Your task to perform on an android device: change notification settings in the gmail app Image 0: 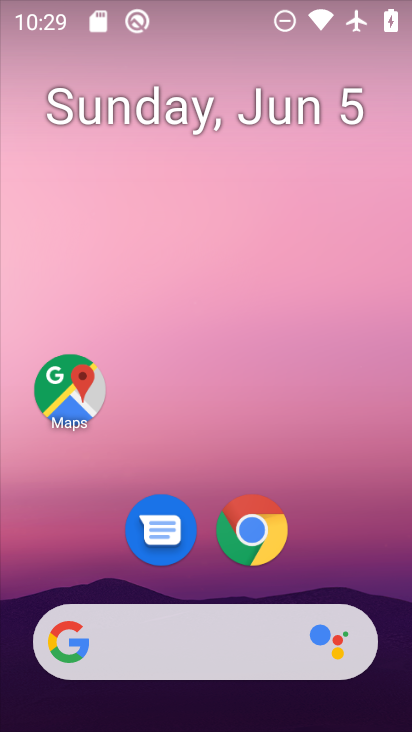
Step 0: drag from (403, 624) to (293, 133)
Your task to perform on an android device: change notification settings in the gmail app Image 1: 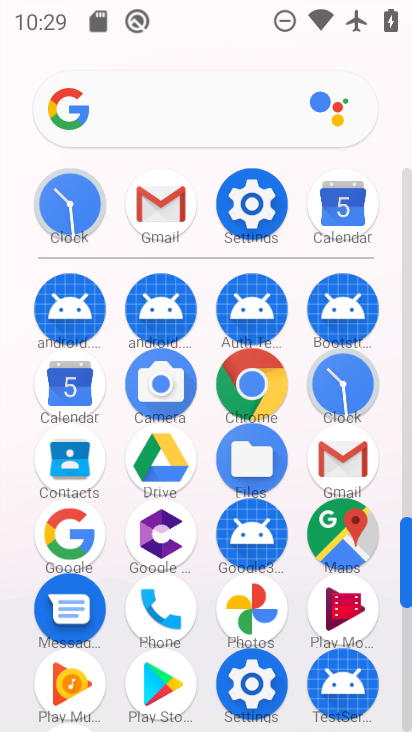
Step 1: click (343, 456)
Your task to perform on an android device: change notification settings in the gmail app Image 2: 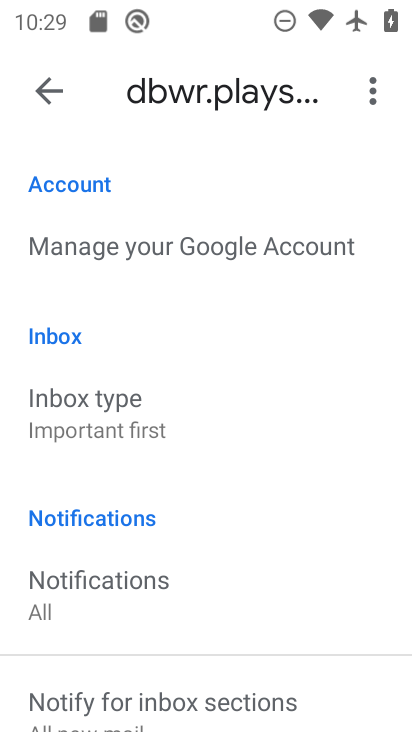
Step 2: drag from (270, 652) to (187, 202)
Your task to perform on an android device: change notification settings in the gmail app Image 3: 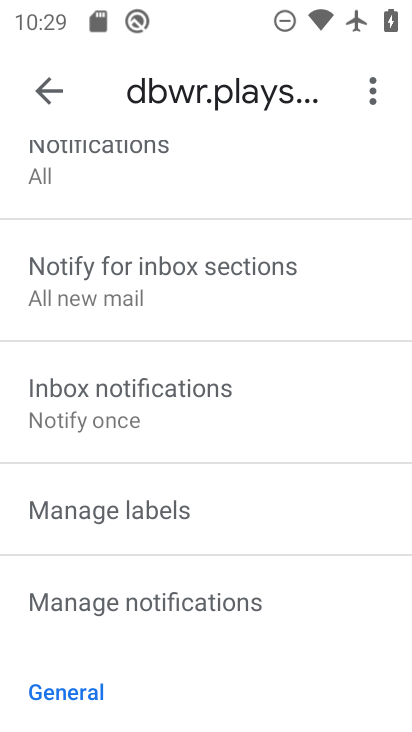
Step 3: click (172, 604)
Your task to perform on an android device: change notification settings in the gmail app Image 4: 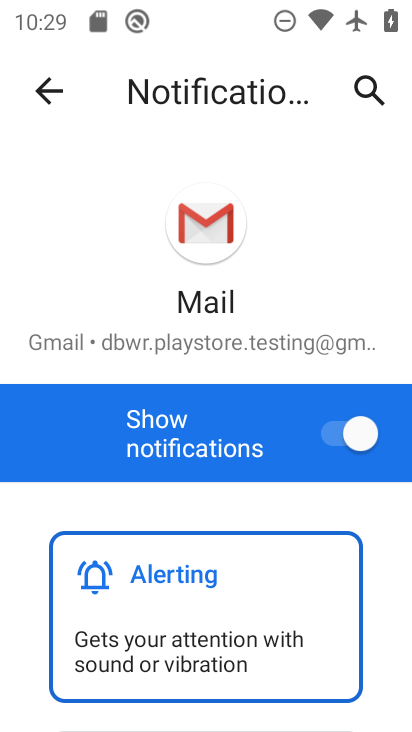
Step 4: drag from (401, 642) to (315, 179)
Your task to perform on an android device: change notification settings in the gmail app Image 5: 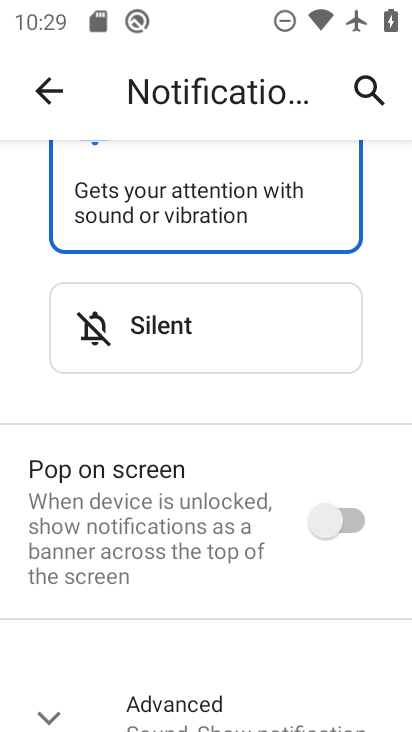
Step 5: drag from (310, 638) to (245, 232)
Your task to perform on an android device: change notification settings in the gmail app Image 6: 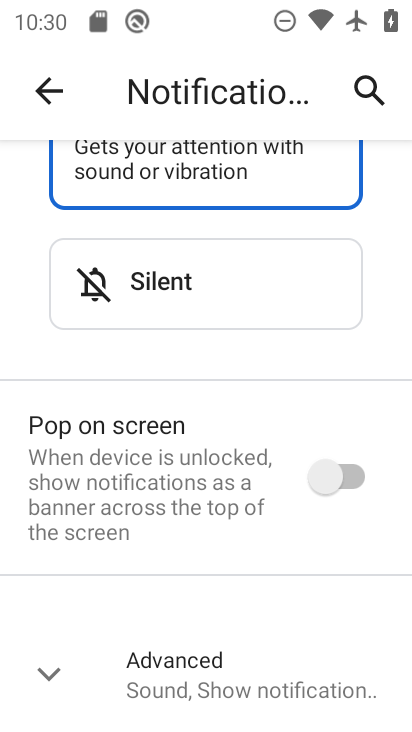
Step 6: click (50, 668)
Your task to perform on an android device: change notification settings in the gmail app Image 7: 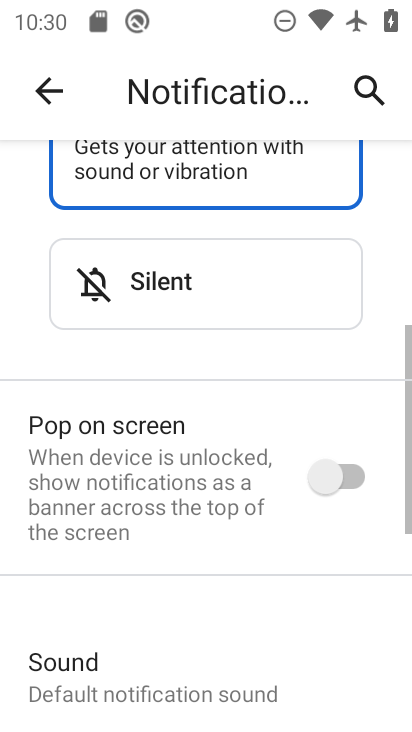
Step 7: drag from (297, 659) to (217, 331)
Your task to perform on an android device: change notification settings in the gmail app Image 8: 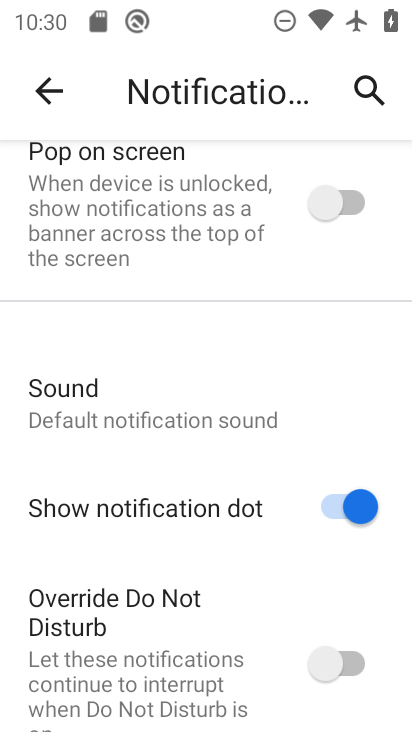
Step 8: click (358, 668)
Your task to perform on an android device: change notification settings in the gmail app Image 9: 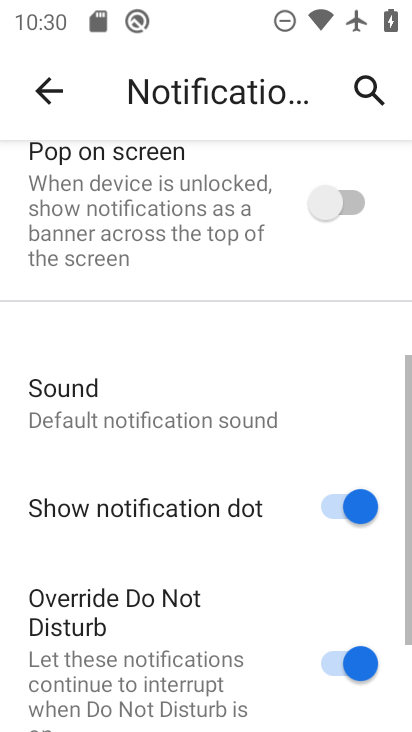
Step 9: drag from (231, 654) to (212, 207)
Your task to perform on an android device: change notification settings in the gmail app Image 10: 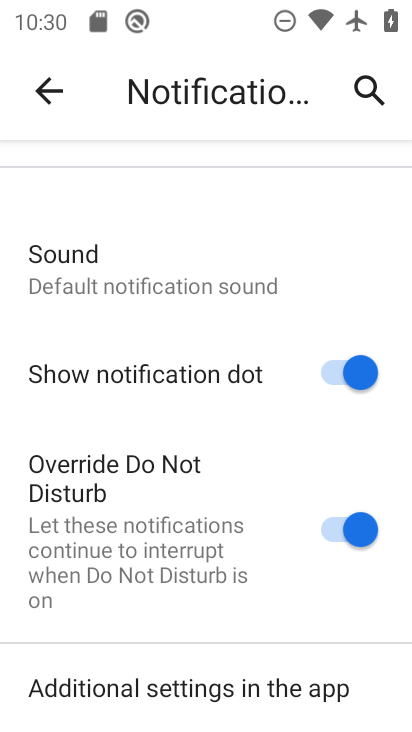
Step 10: click (327, 373)
Your task to perform on an android device: change notification settings in the gmail app Image 11: 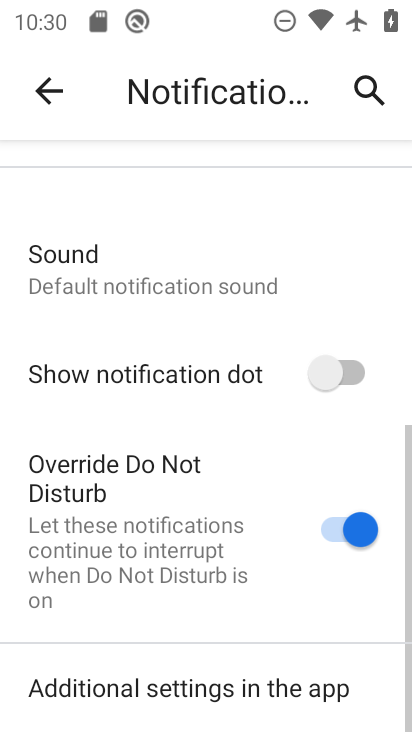
Step 11: drag from (277, 366) to (249, 701)
Your task to perform on an android device: change notification settings in the gmail app Image 12: 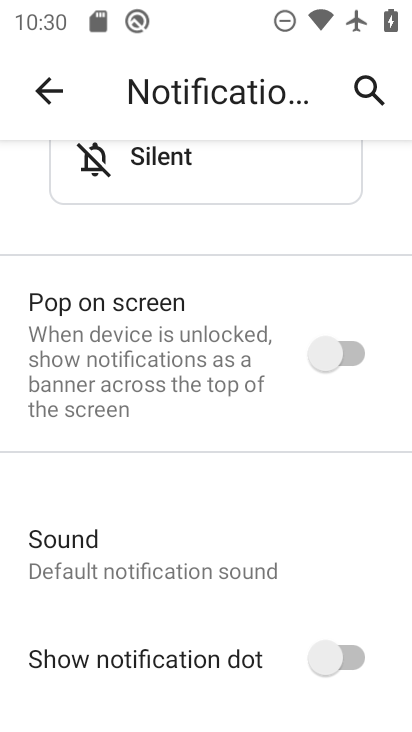
Step 12: click (359, 353)
Your task to perform on an android device: change notification settings in the gmail app Image 13: 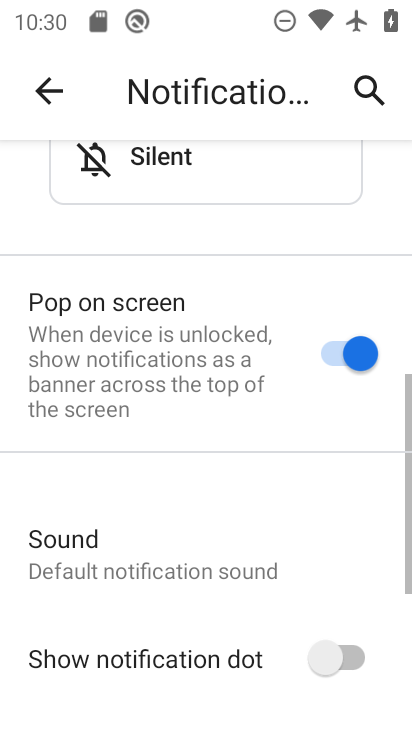
Step 13: task complete